Your task to perform on an android device: delete the emails in spam in the gmail app Image 0: 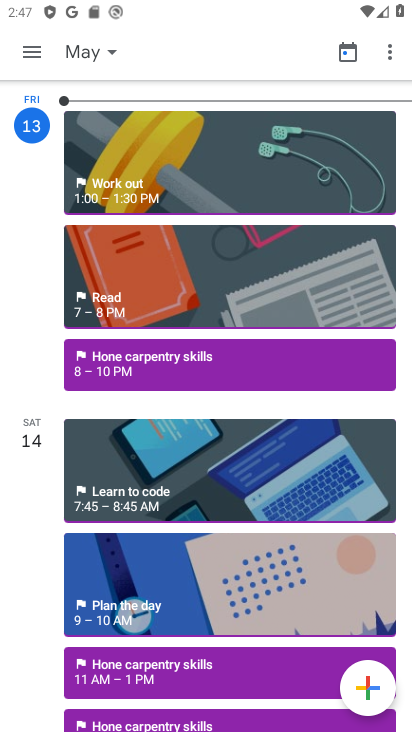
Step 0: press home button
Your task to perform on an android device: delete the emails in spam in the gmail app Image 1: 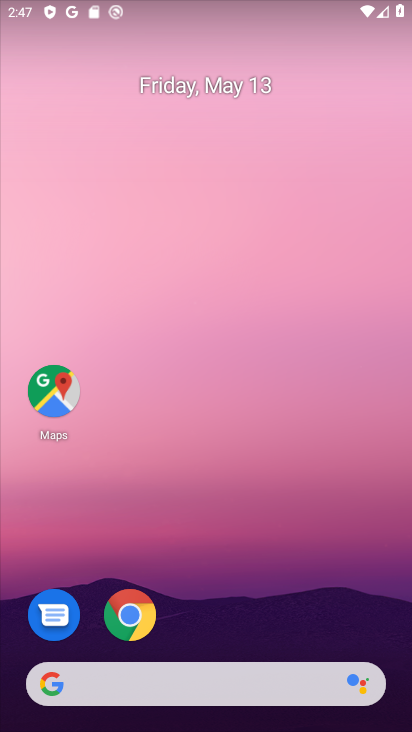
Step 1: drag from (175, 686) to (347, 360)
Your task to perform on an android device: delete the emails in spam in the gmail app Image 2: 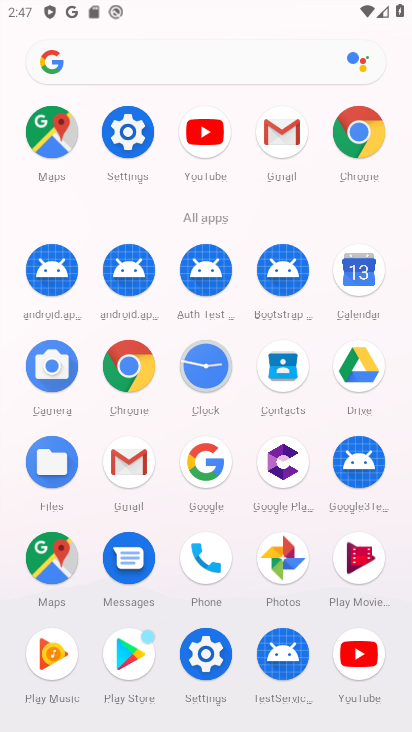
Step 2: click (294, 138)
Your task to perform on an android device: delete the emails in spam in the gmail app Image 3: 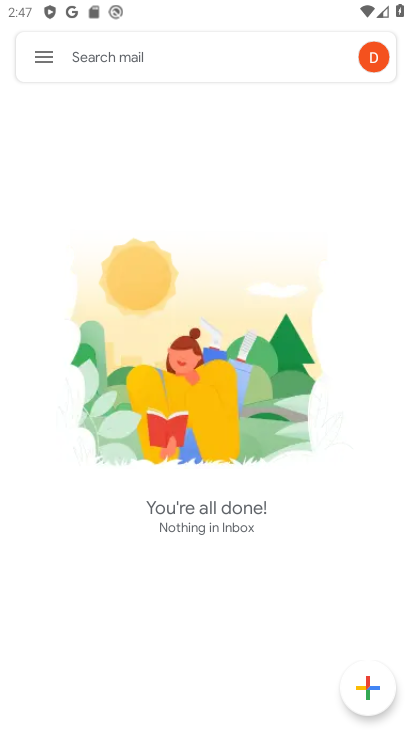
Step 3: click (46, 60)
Your task to perform on an android device: delete the emails in spam in the gmail app Image 4: 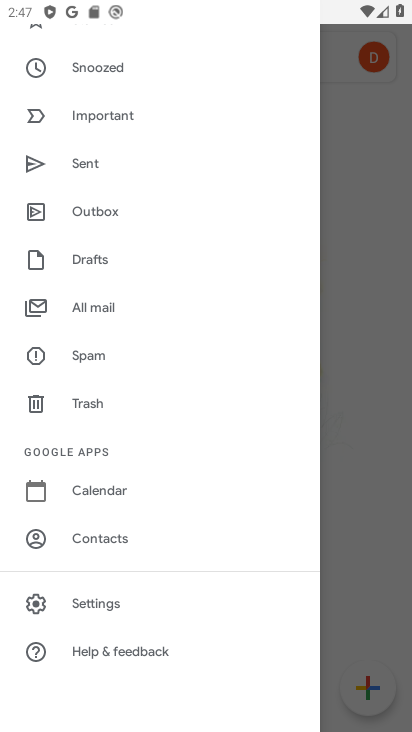
Step 4: click (85, 360)
Your task to perform on an android device: delete the emails in spam in the gmail app Image 5: 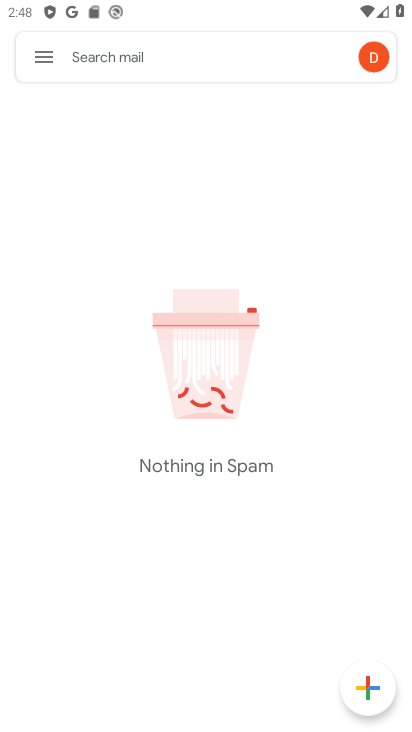
Step 5: task complete